Your task to perform on an android device: change the upload size in google photos Image 0: 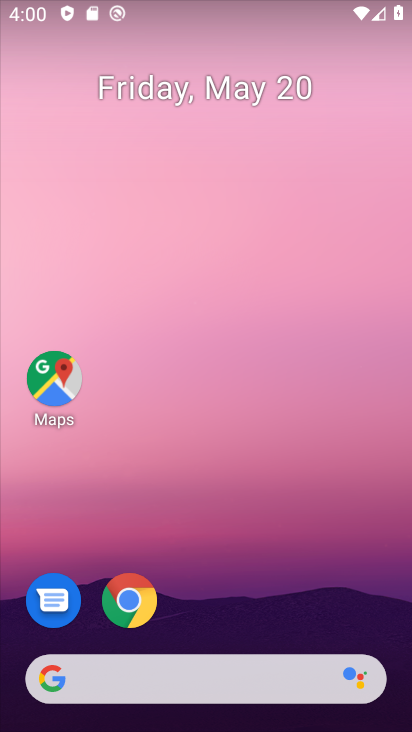
Step 0: drag from (192, 567) to (198, 36)
Your task to perform on an android device: change the upload size in google photos Image 1: 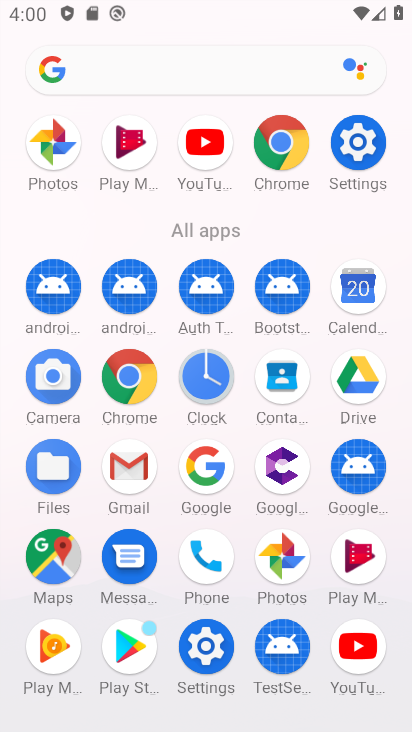
Step 1: click (287, 549)
Your task to perform on an android device: change the upload size in google photos Image 2: 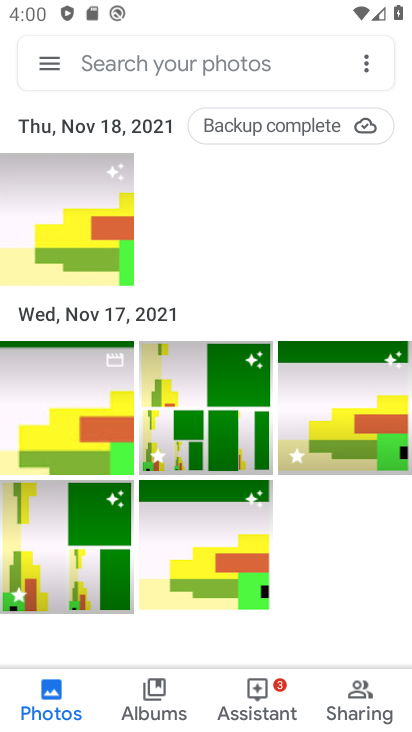
Step 2: click (43, 64)
Your task to perform on an android device: change the upload size in google photos Image 3: 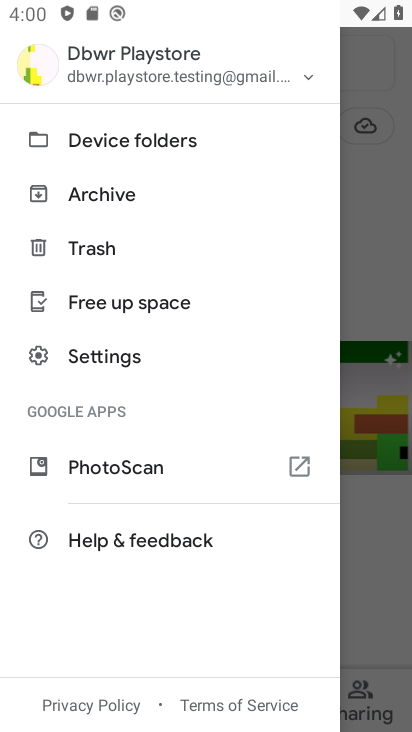
Step 3: click (110, 354)
Your task to perform on an android device: change the upload size in google photos Image 4: 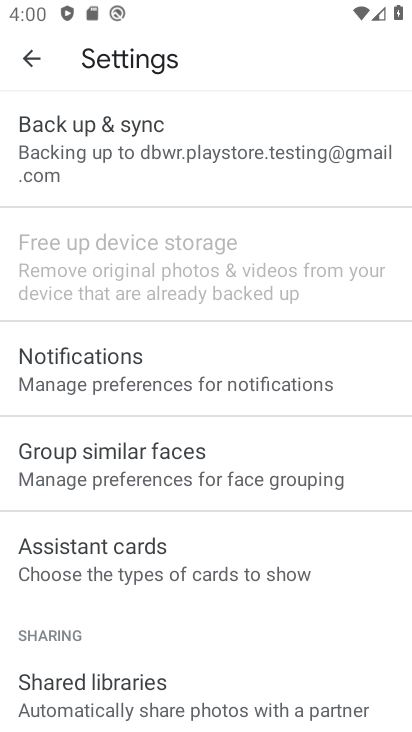
Step 4: click (174, 137)
Your task to perform on an android device: change the upload size in google photos Image 5: 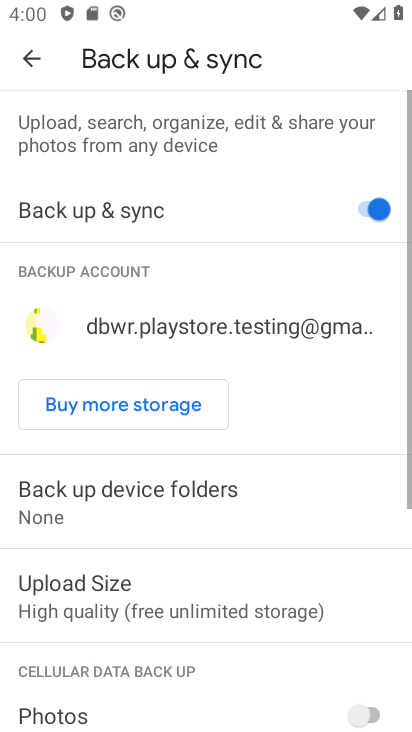
Step 5: click (157, 588)
Your task to perform on an android device: change the upload size in google photos Image 6: 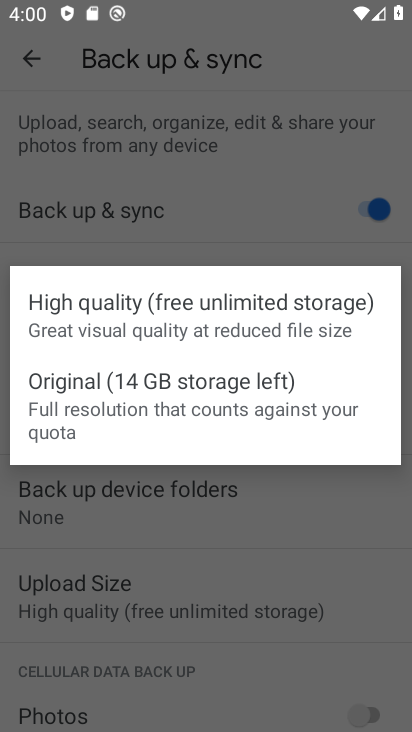
Step 6: drag from (149, 331) to (149, 416)
Your task to perform on an android device: change the upload size in google photos Image 7: 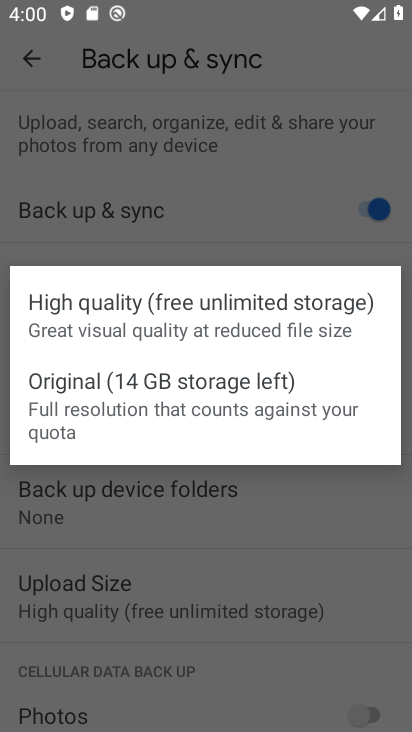
Step 7: click (149, 392)
Your task to perform on an android device: change the upload size in google photos Image 8: 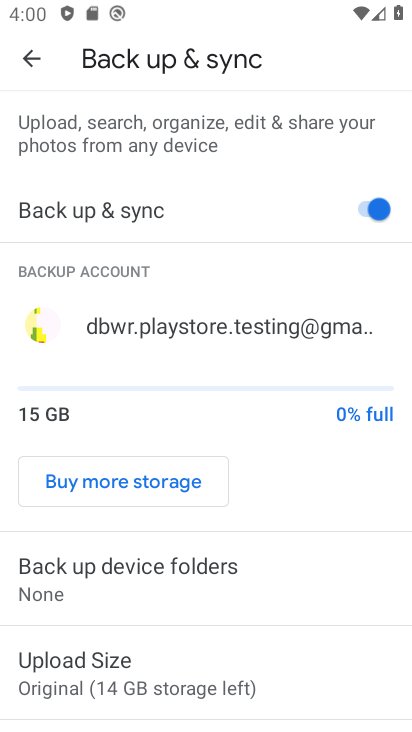
Step 8: click (169, 667)
Your task to perform on an android device: change the upload size in google photos Image 9: 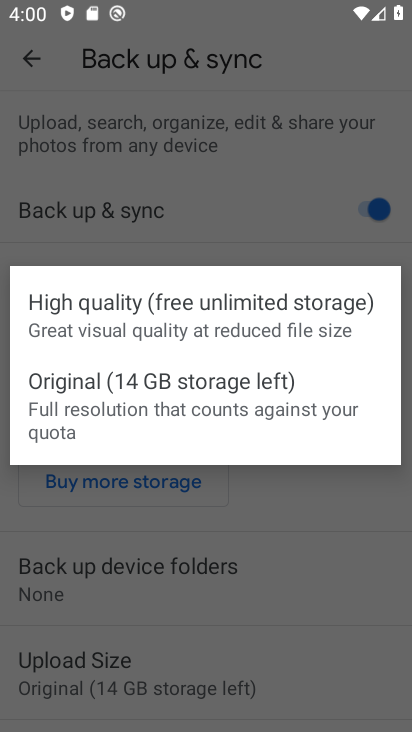
Step 9: click (162, 410)
Your task to perform on an android device: change the upload size in google photos Image 10: 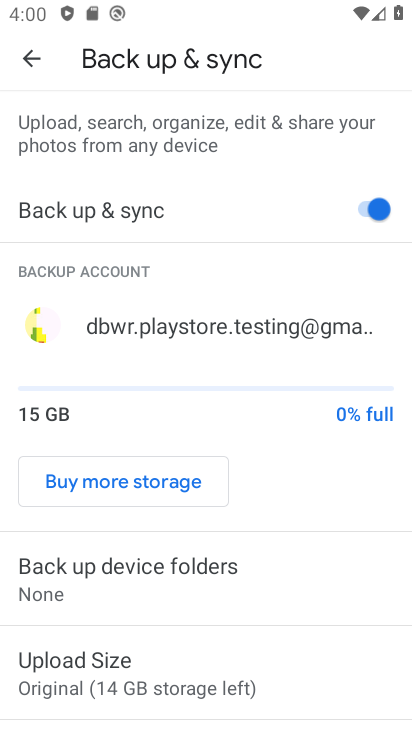
Step 10: task complete